Your task to perform on an android device: open sync settings in chrome Image 0: 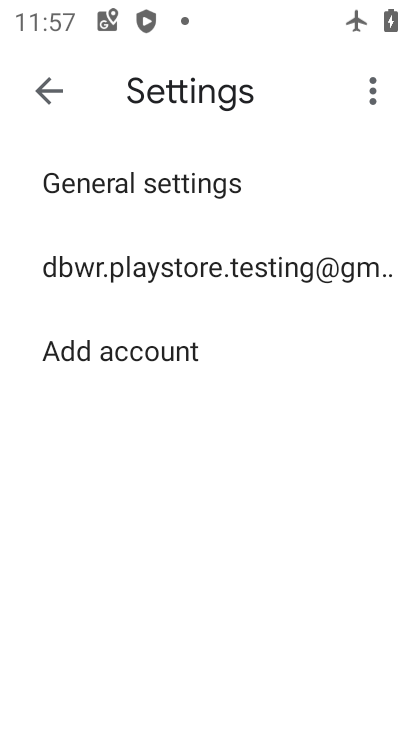
Step 0: press home button
Your task to perform on an android device: open sync settings in chrome Image 1: 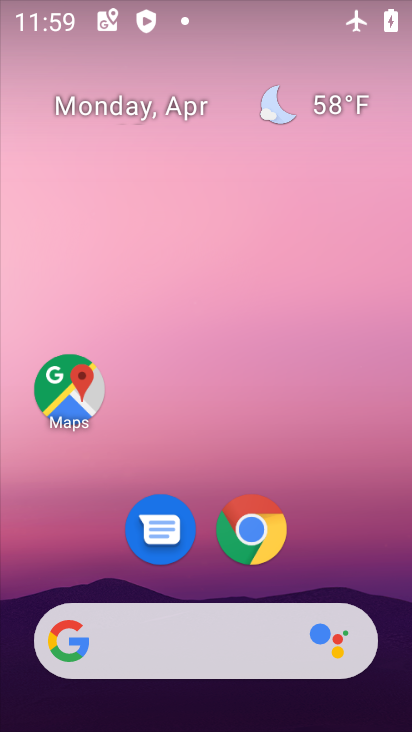
Step 1: click (254, 533)
Your task to perform on an android device: open sync settings in chrome Image 2: 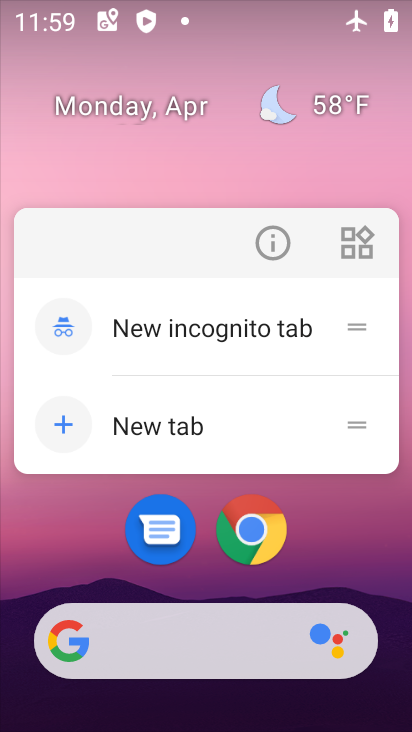
Step 2: click (254, 533)
Your task to perform on an android device: open sync settings in chrome Image 3: 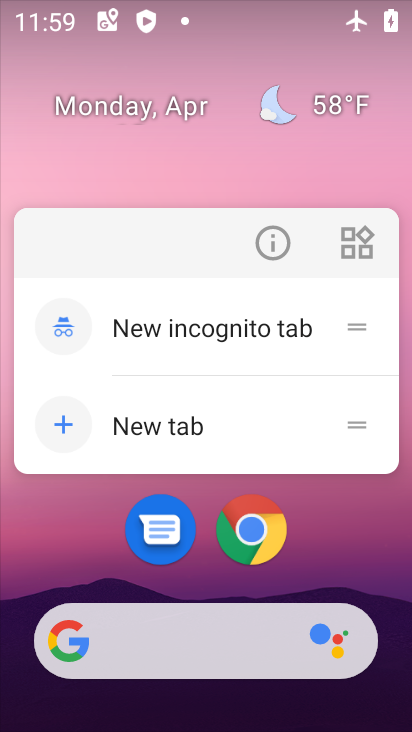
Step 3: click (254, 533)
Your task to perform on an android device: open sync settings in chrome Image 4: 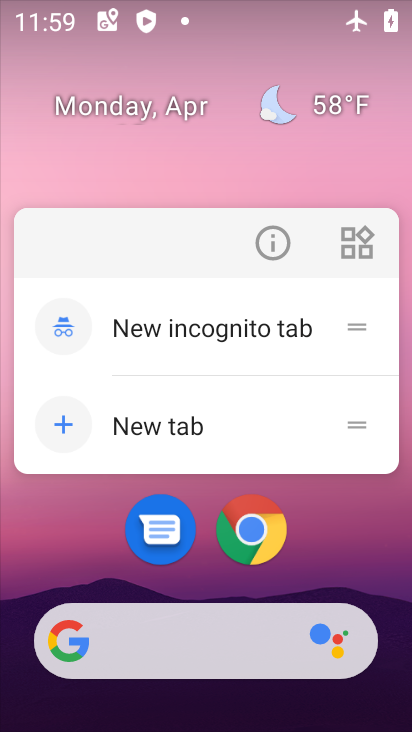
Step 4: click (254, 533)
Your task to perform on an android device: open sync settings in chrome Image 5: 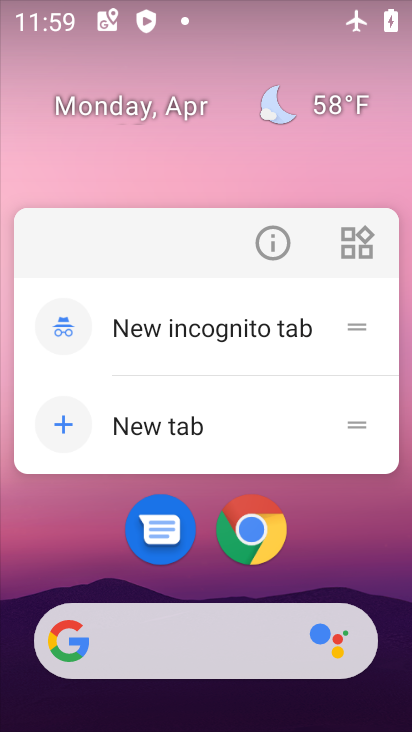
Step 5: click (178, 521)
Your task to perform on an android device: open sync settings in chrome Image 6: 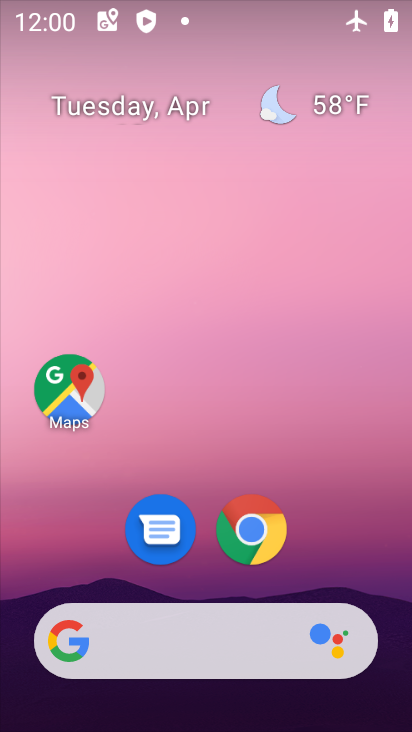
Step 6: click (242, 544)
Your task to perform on an android device: open sync settings in chrome Image 7: 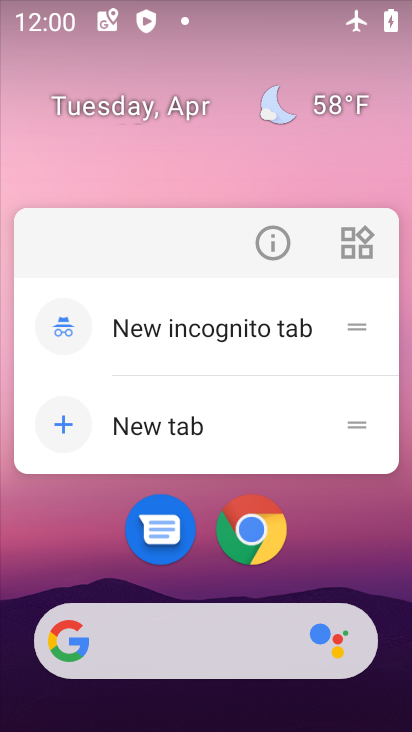
Step 7: click (243, 545)
Your task to perform on an android device: open sync settings in chrome Image 8: 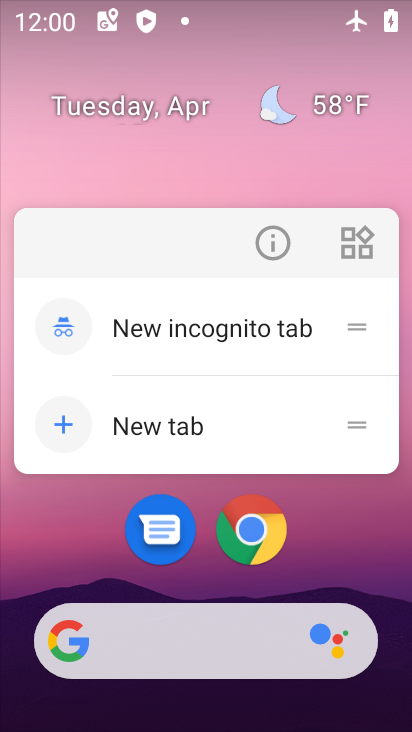
Step 8: click (243, 545)
Your task to perform on an android device: open sync settings in chrome Image 9: 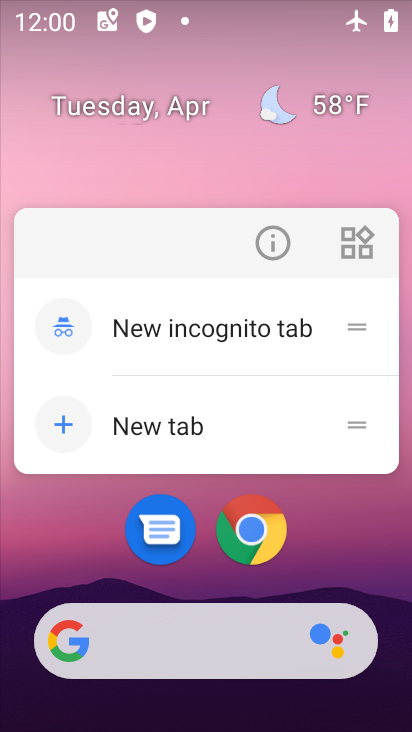
Step 9: click (243, 545)
Your task to perform on an android device: open sync settings in chrome Image 10: 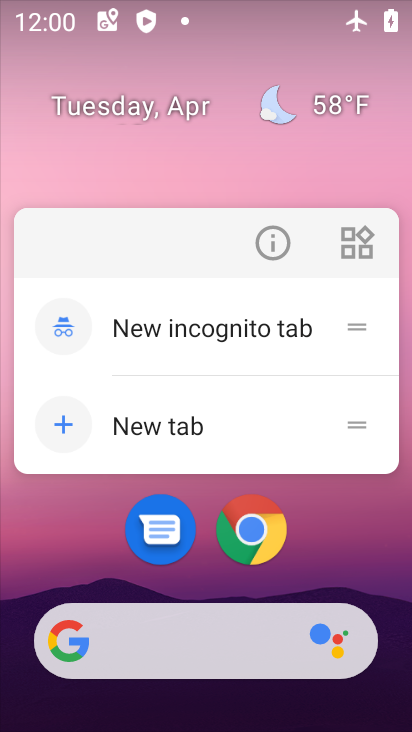
Step 10: click (329, 568)
Your task to perform on an android device: open sync settings in chrome Image 11: 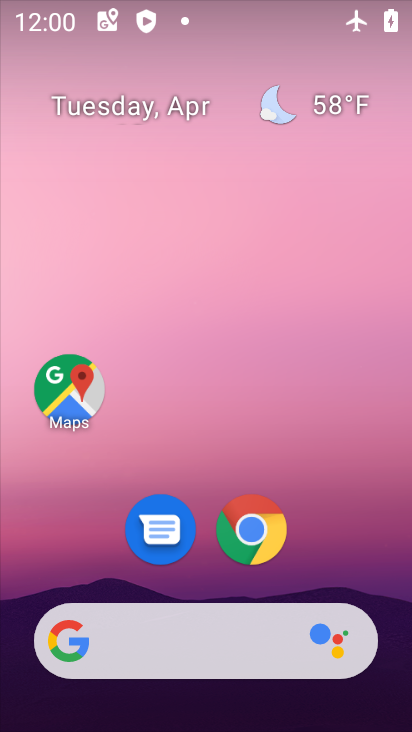
Step 11: drag from (330, 554) to (227, 1)
Your task to perform on an android device: open sync settings in chrome Image 12: 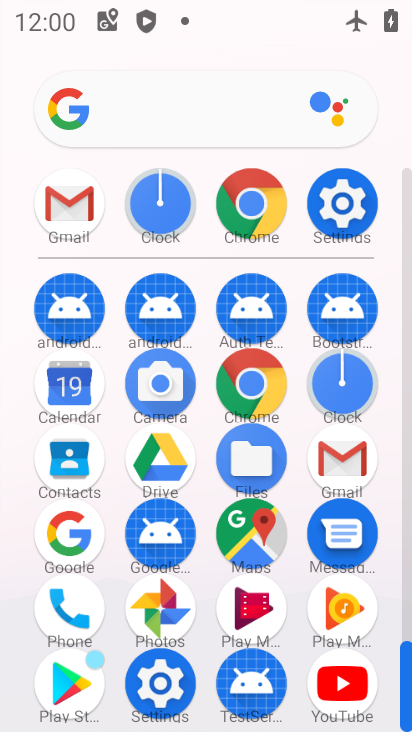
Step 12: click (247, 383)
Your task to perform on an android device: open sync settings in chrome Image 13: 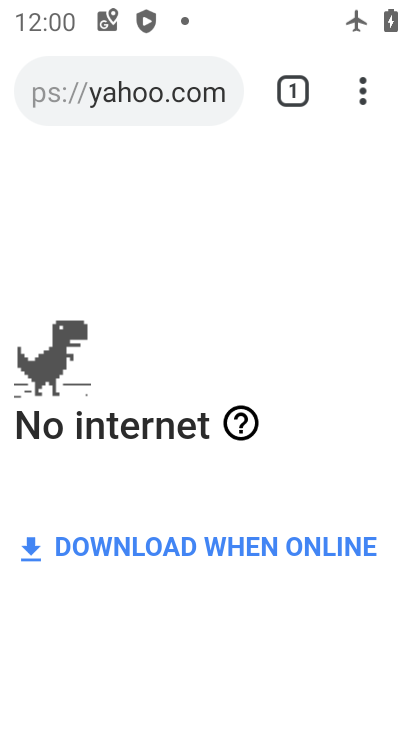
Step 13: click (367, 81)
Your task to perform on an android device: open sync settings in chrome Image 14: 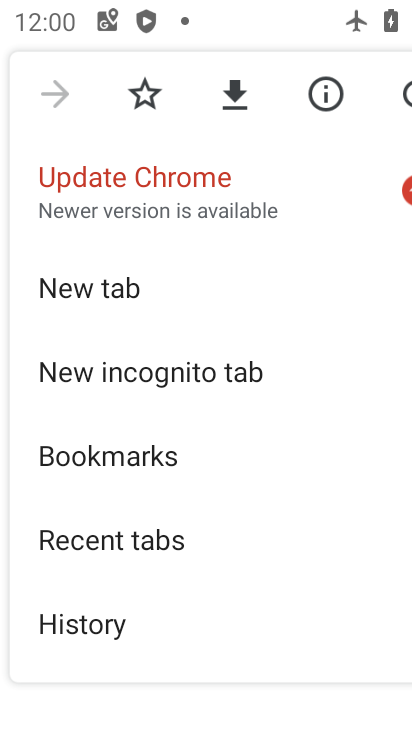
Step 14: drag from (150, 613) to (183, 147)
Your task to perform on an android device: open sync settings in chrome Image 15: 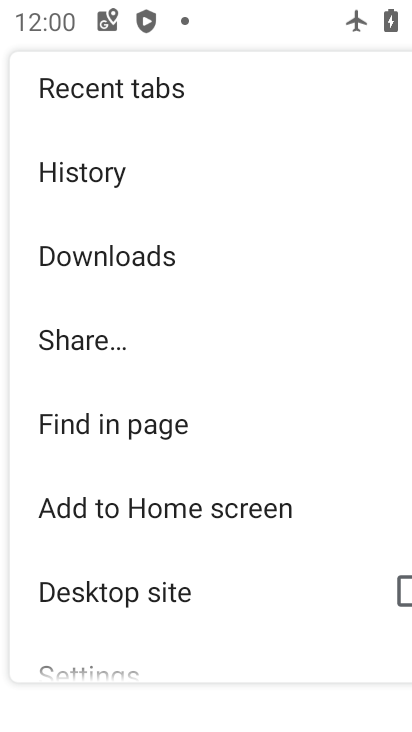
Step 15: drag from (176, 580) to (167, 140)
Your task to perform on an android device: open sync settings in chrome Image 16: 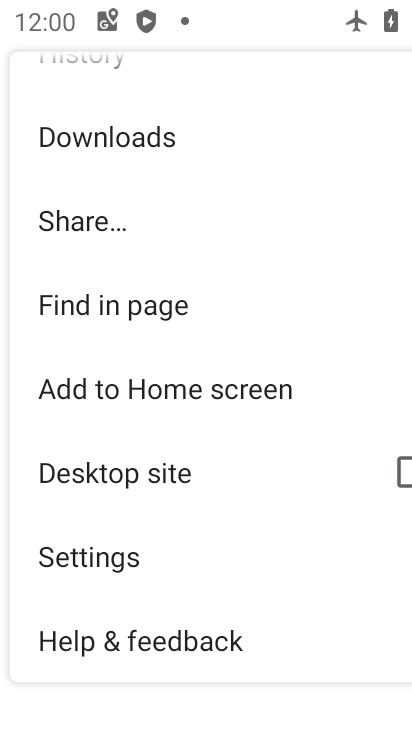
Step 16: drag from (143, 547) to (183, 74)
Your task to perform on an android device: open sync settings in chrome Image 17: 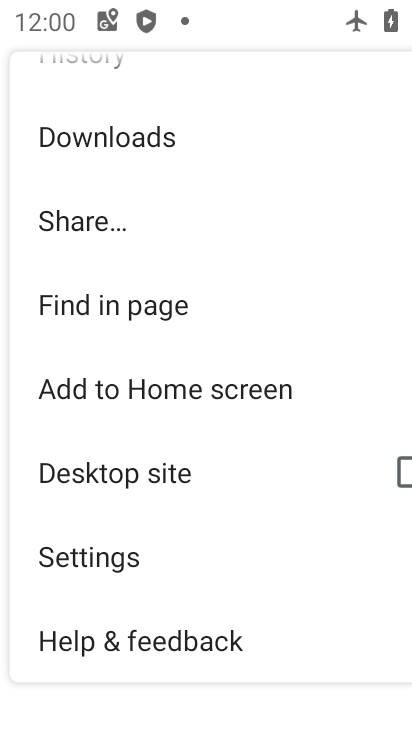
Step 17: click (139, 573)
Your task to perform on an android device: open sync settings in chrome Image 18: 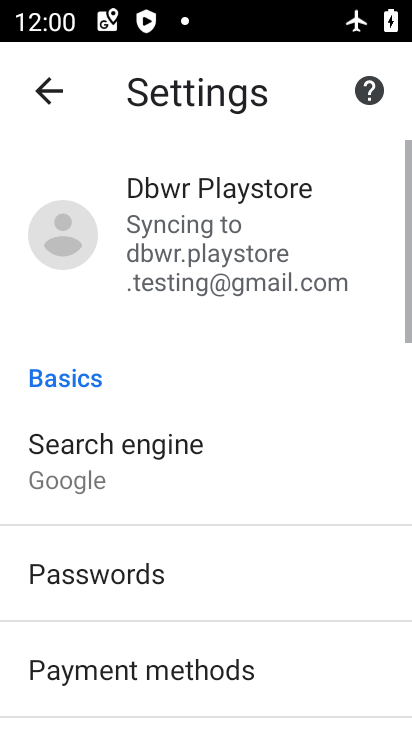
Step 18: drag from (139, 573) to (198, 107)
Your task to perform on an android device: open sync settings in chrome Image 19: 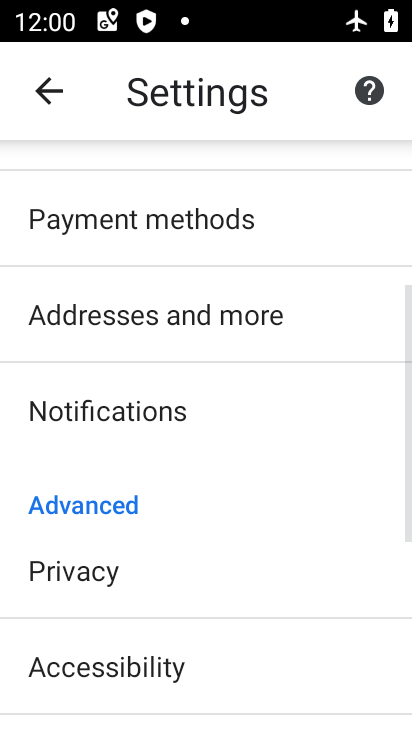
Step 19: drag from (146, 677) to (239, 263)
Your task to perform on an android device: open sync settings in chrome Image 20: 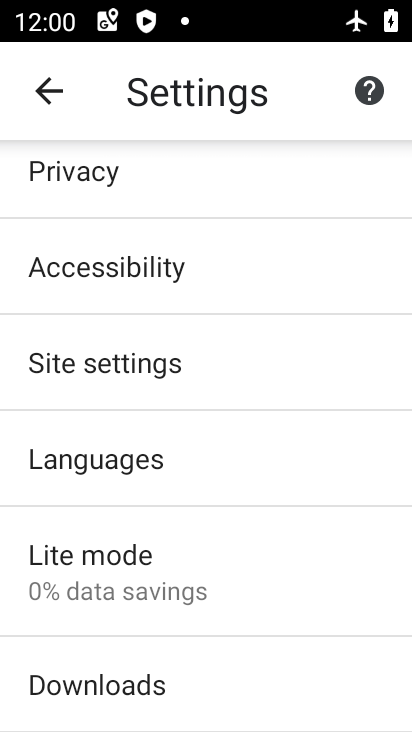
Step 20: click (235, 375)
Your task to perform on an android device: open sync settings in chrome Image 21: 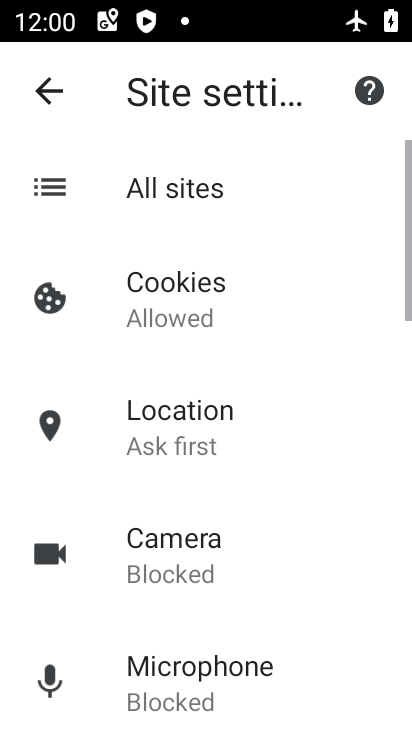
Step 21: drag from (181, 616) to (281, 136)
Your task to perform on an android device: open sync settings in chrome Image 22: 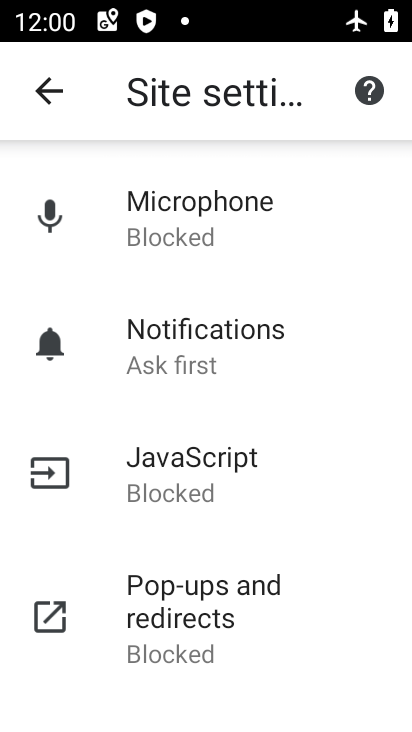
Step 22: drag from (169, 595) to (214, 165)
Your task to perform on an android device: open sync settings in chrome Image 23: 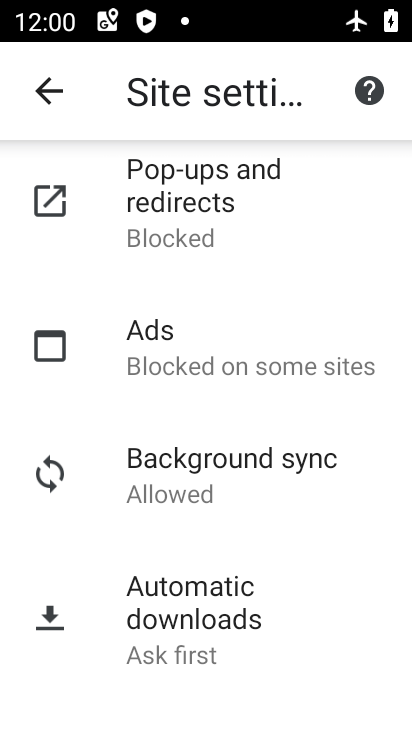
Step 23: click (209, 498)
Your task to perform on an android device: open sync settings in chrome Image 24: 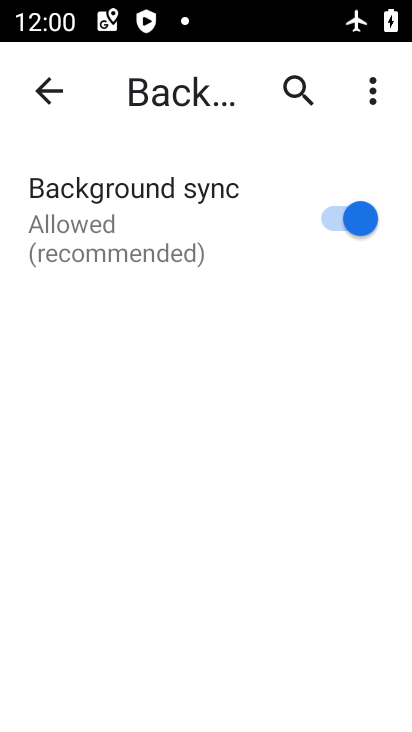
Step 24: task complete